Your task to perform on an android device: Open Google Chrome and open the bookmarks view Image 0: 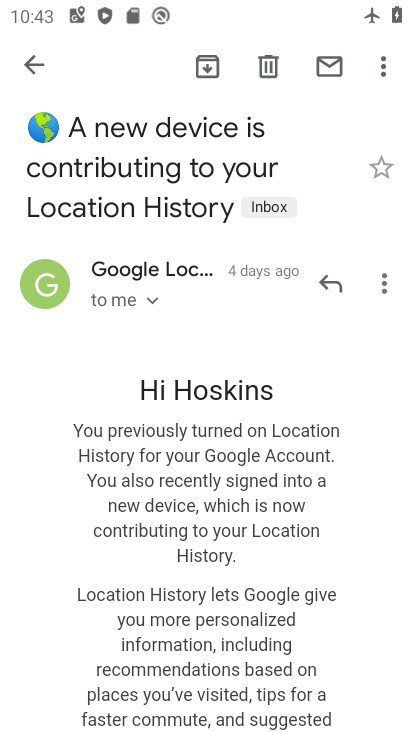
Step 0: press home button
Your task to perform on an android device: Open Google Chrome and open the bookmarks view Image 1: 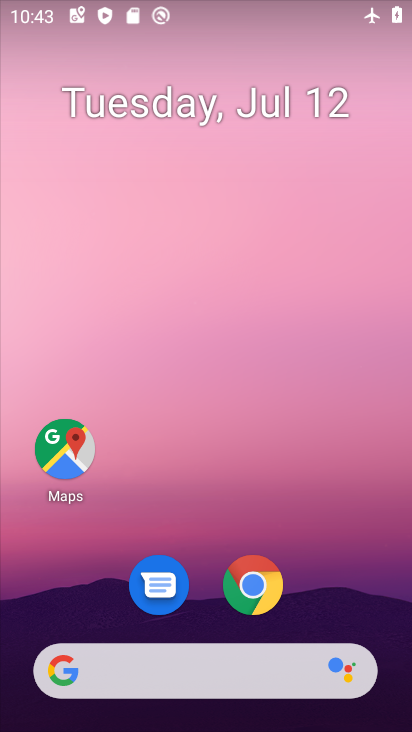
Step 1: click (259, 579)
Your task to perform on an android device: Open Google Chrome and open the bookmarks view Image 2: 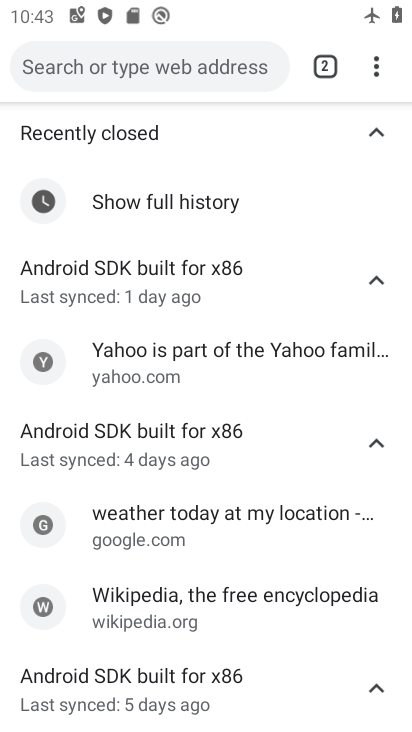
Step 2: click (372, 69)
Your task to perform on an android device: Open Google Chrome and open the bookmarks view Image 3: 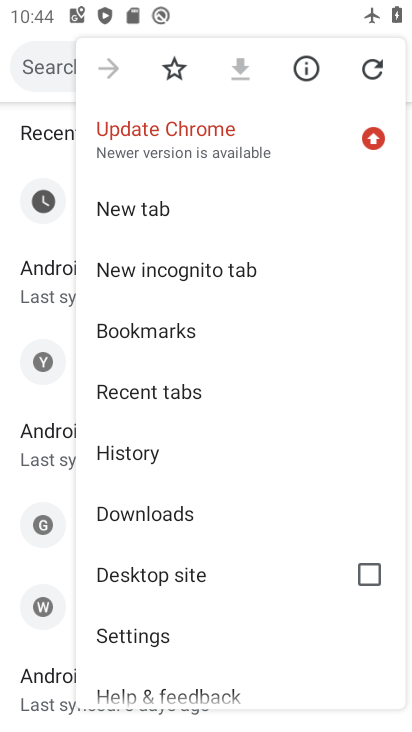
Step 3: click (174, 323)
Your task to perform on an android device: Open Google Chrome and open the bookmarks view Image 4: 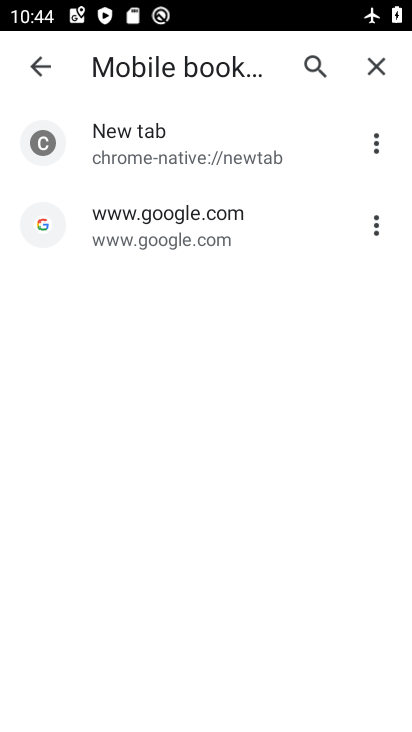
Step 4: task complete